Your task to perform on an android device: Open settings Image 0: 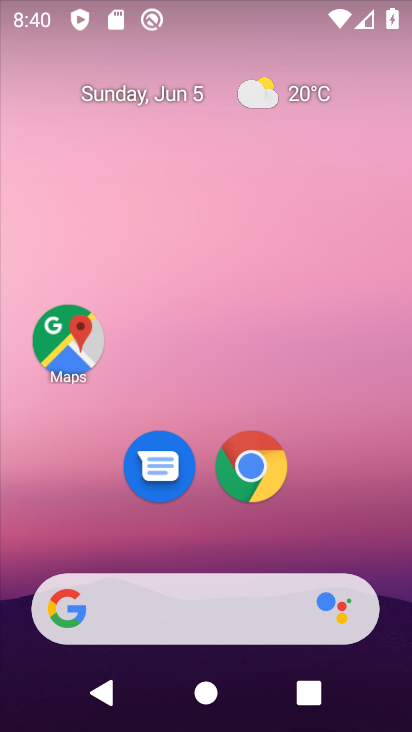
Step 0: drag from (237, 548) to (247, 40)
Your task to perform on an android device: Open settings Image 1: 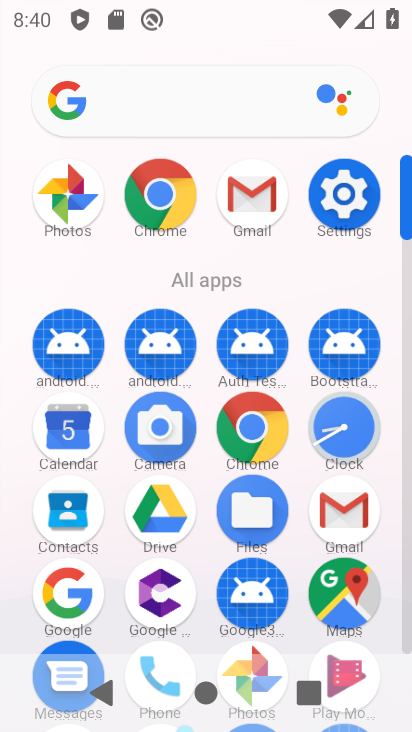
Step 1: click (338, 209)
Your task to perform on an android device: Open settings Image 2: 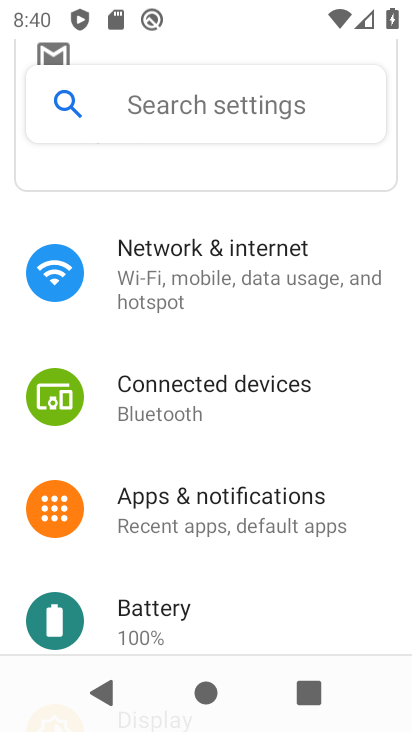
Step 2: task complete